Your task to perform on an android device: Open Youtube and go to the subscriptions tab Image 0: 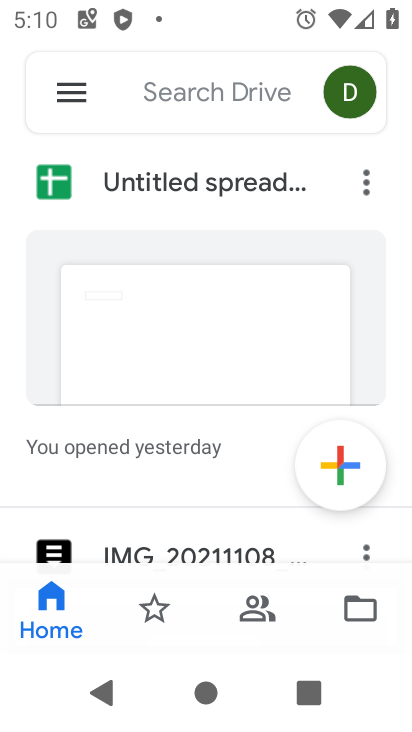
Step 0: press home button
Your task to perform on an android device: Open Youtube and go to the subscriptions tab Image 1: 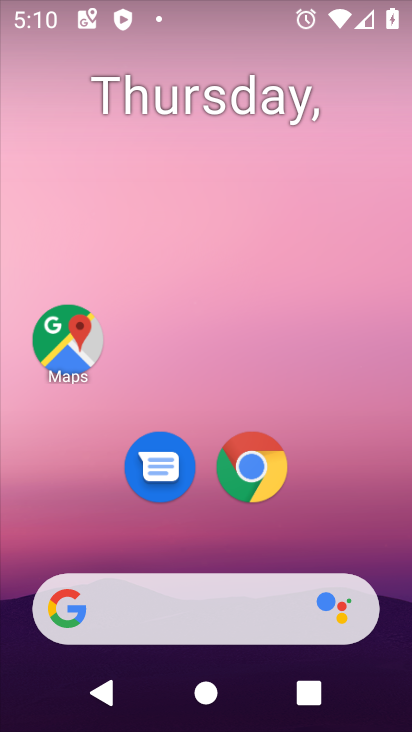
Step 1: drag from (392, 569) to (298, 241)
Your task to perform on an android device: Open Youtube and go to the subscriptions tab Image 2: 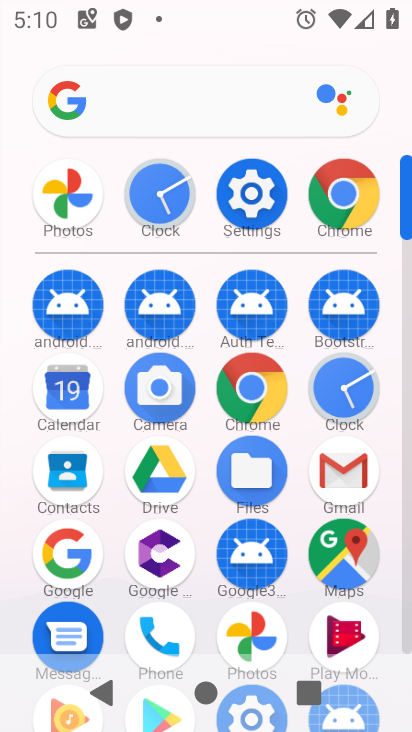
Step 2: click (406, 640)
Your task to perform on an android device: Open Youtube and go to the subscriptions tab Image 3: 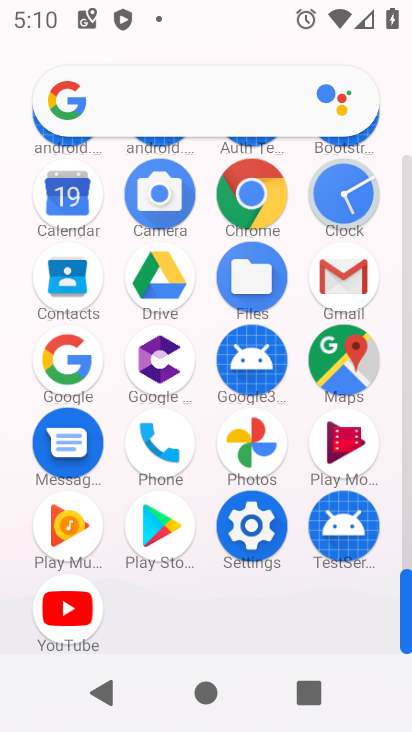
Step 3: click (85, 604)
Your task to perform on an android device: Open Youtube and go to the subscriptions tab Image 4: 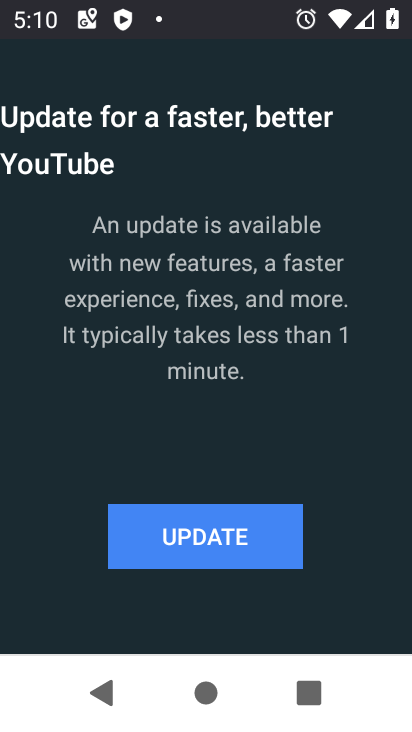
Step 4: click (230, 545)
Your task to perform on an android device: Open Youtube and go to the subscriptions tab Image 5: 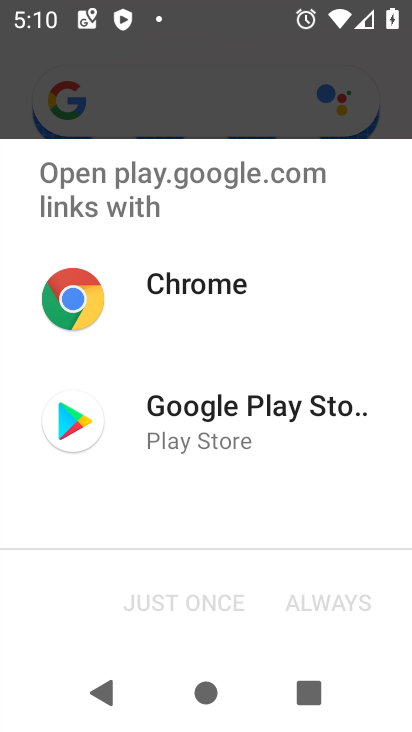
Step 5: click (237, 444)
Your task to perform on an android device: Open Youtube and go to the subscriptions tab Image 6: 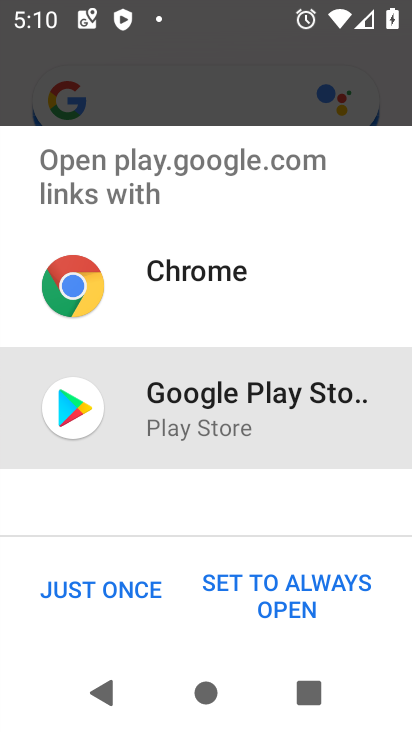
Step 6: click (125, 604)
Your task to perform on an android device: Open Youtube and go to the subscriptions tab Image 7: 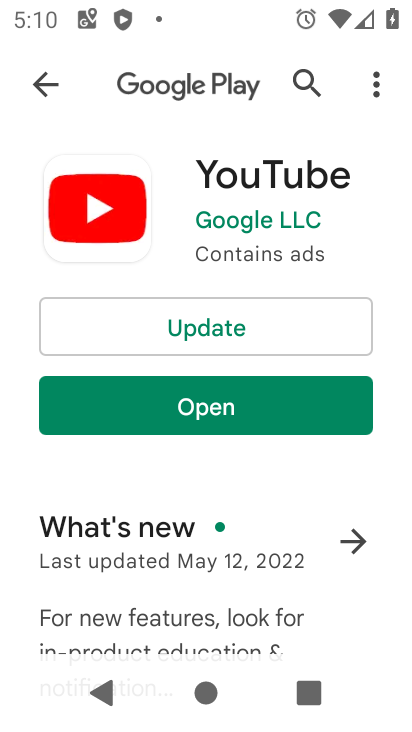
Step 7: click (312, 330)
Your task to perform on an android device: Open Youtube and go to the subscriptions tab Image 8: 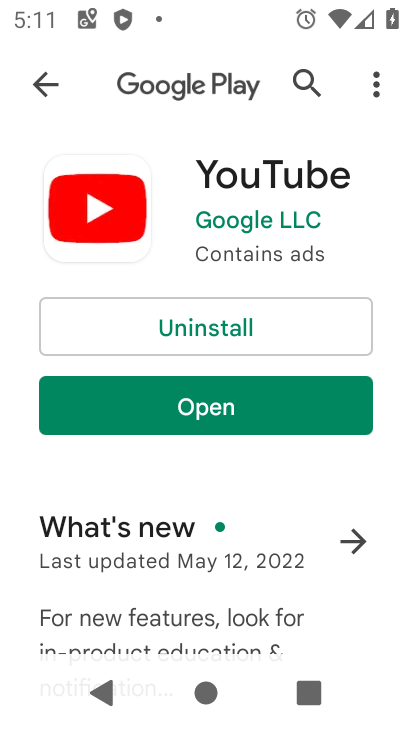
Step 8: click (341, 394)
Your task to perform on an android device: Open Youtube and go to the subscriptions tab Image 9: 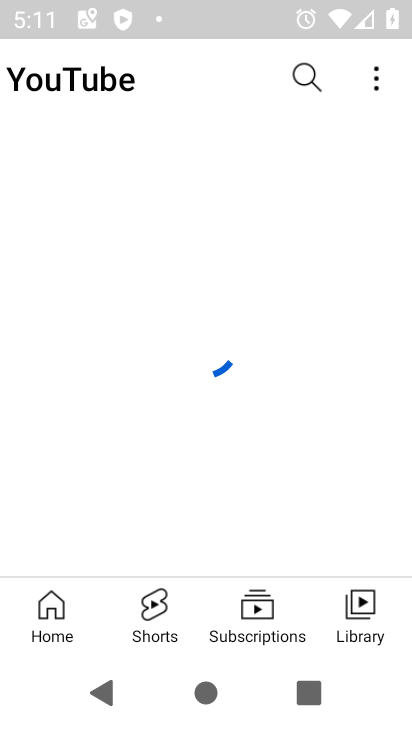
Step 9: click (252, 616)
Your task to perform on an android device: Open Youtube and go to the subscriptions tab Image 10: 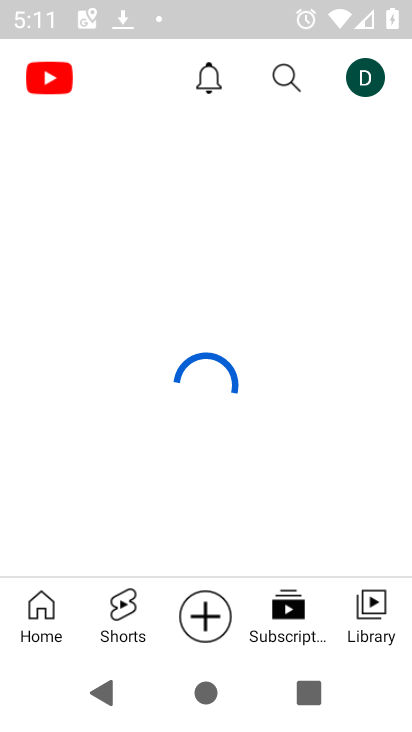
Step 10: task complete